Your task to perform on an android device: open app "Cash App" (install if not already installed), go to login, and select forgot password Image 0: 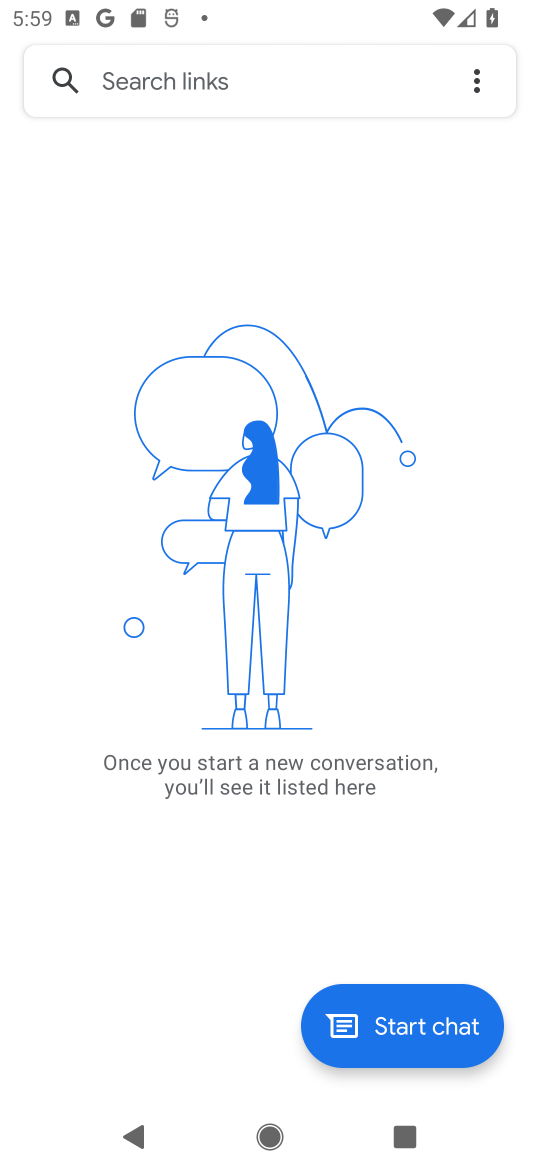
Step 0: click (220, 66)
Your task to perform on an android device: open app "Cash App" (install if not already installed), go to login, and select forgot password Image 1: 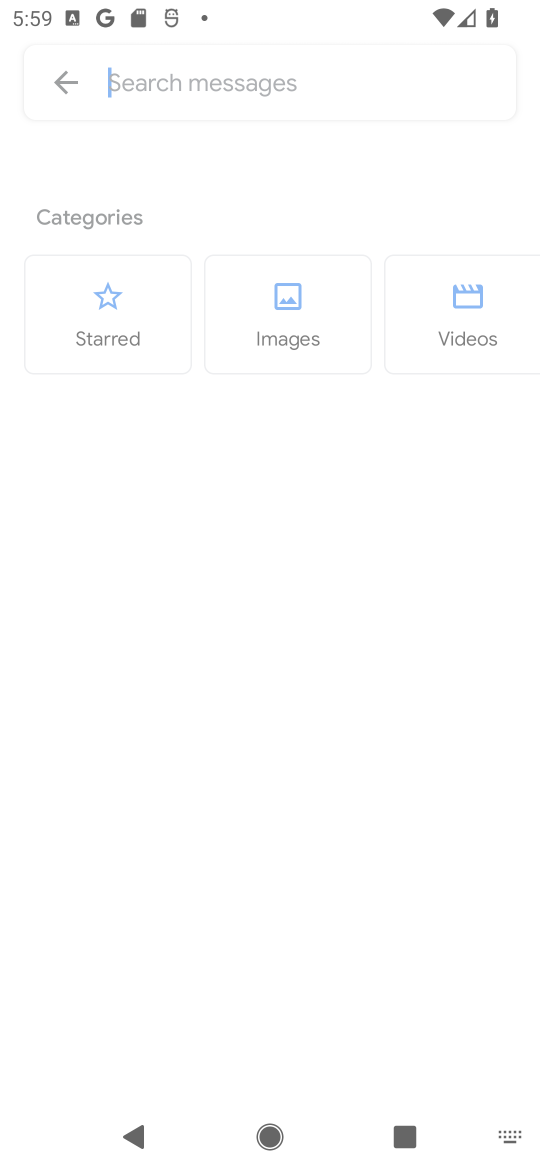
Step 1: press home button
Your task to perform on an android device: open app "Cash App" (install if not already installed), go to login, and select forgot password Image 2: 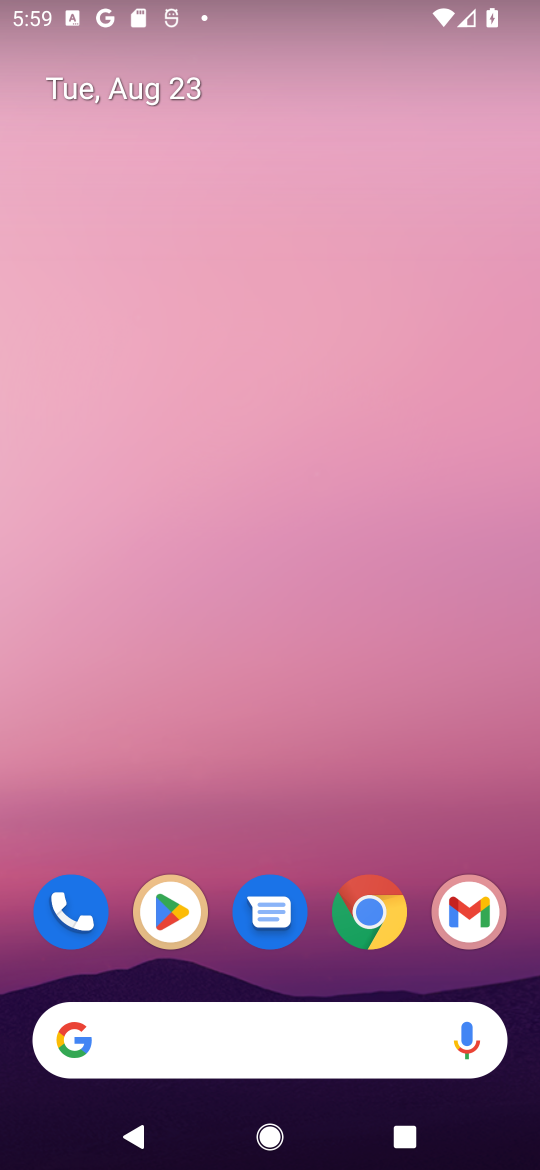
Step 2: click (179, 904)
Your task to perform on an android device: open app "Cash App" (install if not already installed), go to login, and select forgot password Image 3: 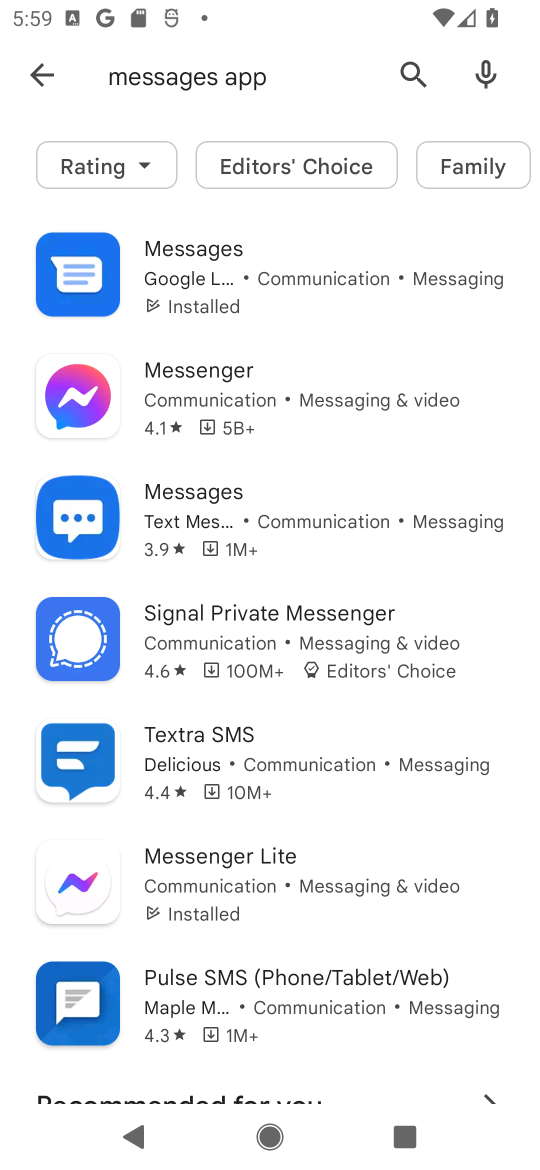
Step 3: click (59, 67)
Your task to perform on an android device: open app "Cash App" (install if not already installed), go to login, and select forgot password Image 4: 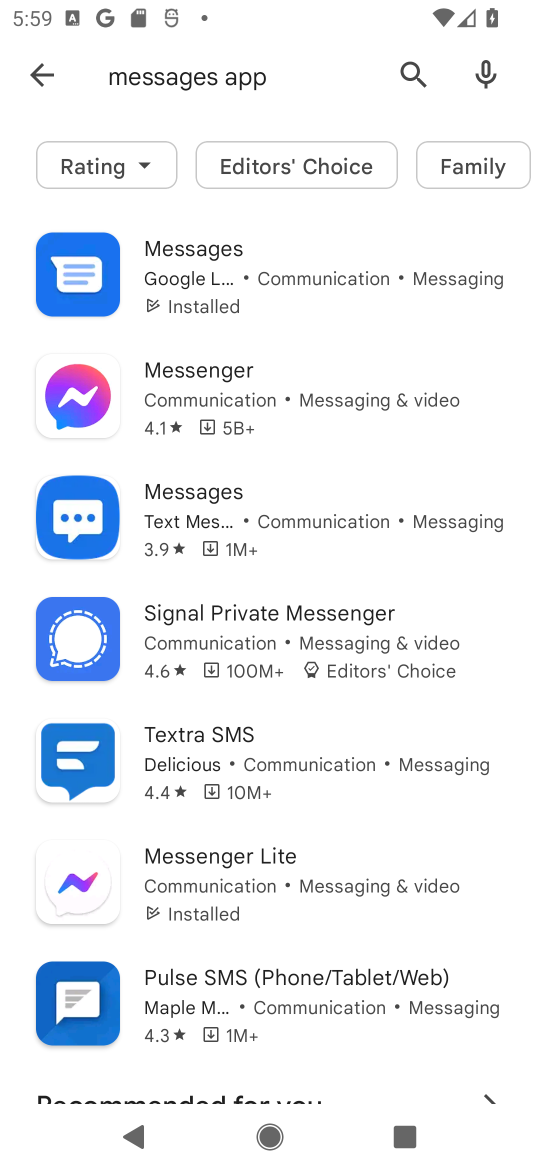
Step 4: click (59, 67)
Your task to perform on an android device: open app "Cash App" (install if not already installed), go to login, and select forgot password Image 5: 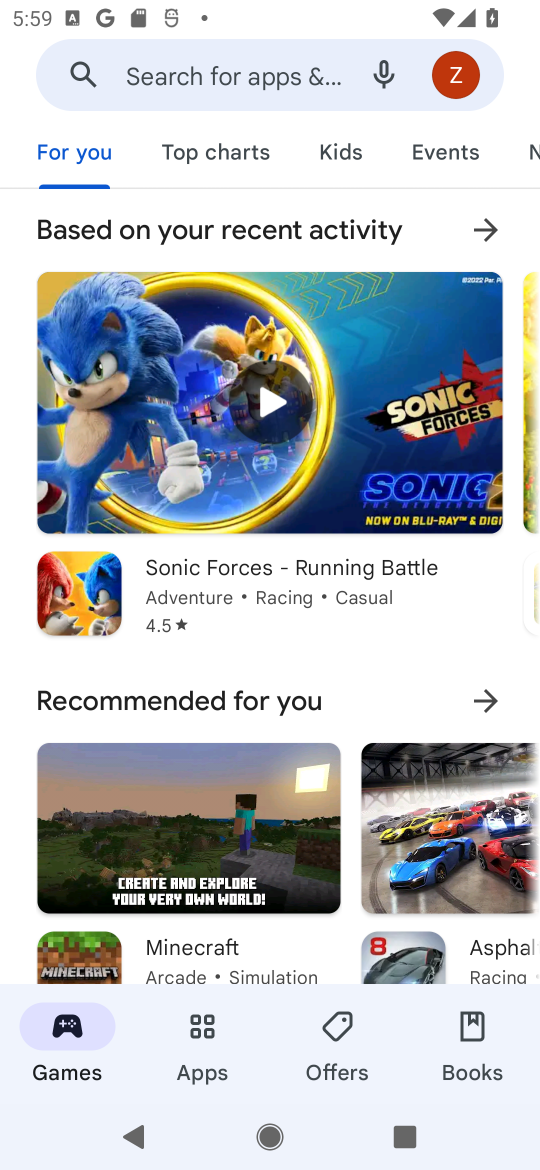
Step 5: click (117, 52)
Your task to perform on an android device: open app "Cash App" (install if not already installed), go to login, and select forgot password Image 6: 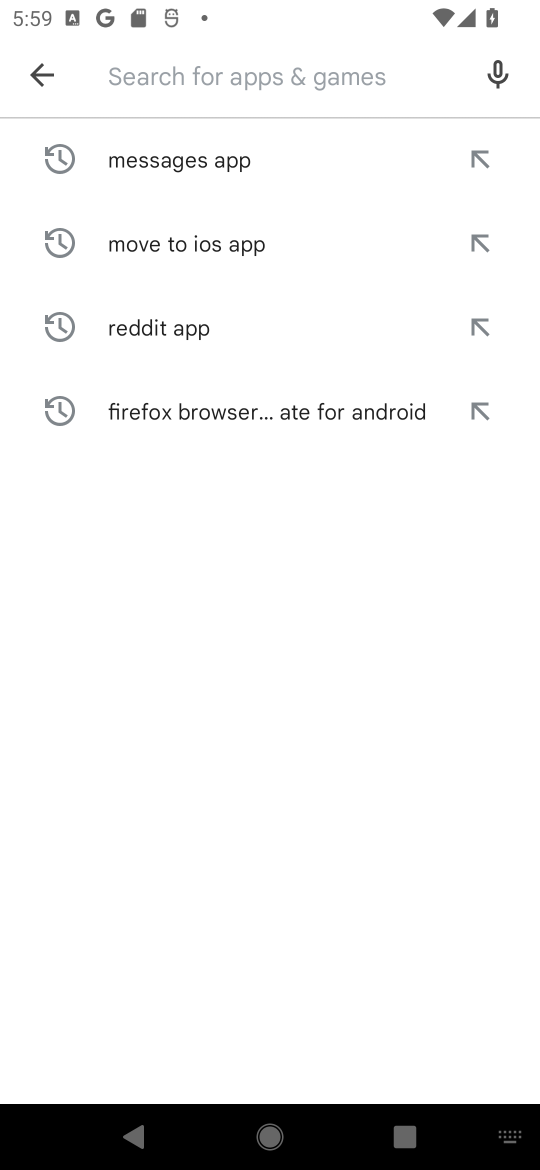
Step 6: type "cash app "
Your task to perform on an android device: open app "Cash App" (install if not already installed), go to login, and select forgot password Image 7: 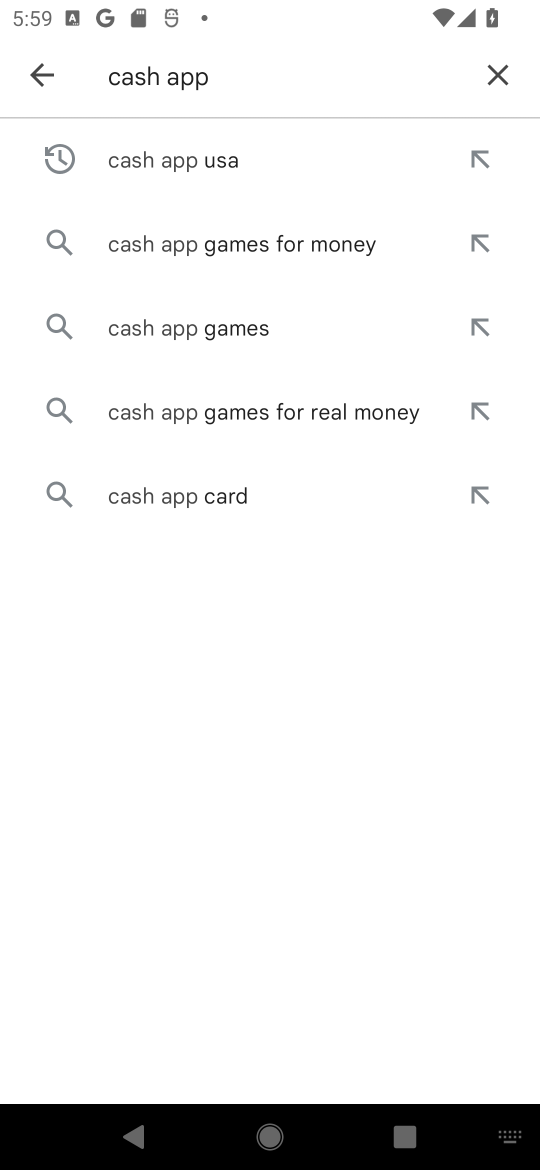
Step 7: click (127, 174)
Your task to perform on an android device: open app "Cash App" (install if not already installed), go to login, and select forgot password Image 8: 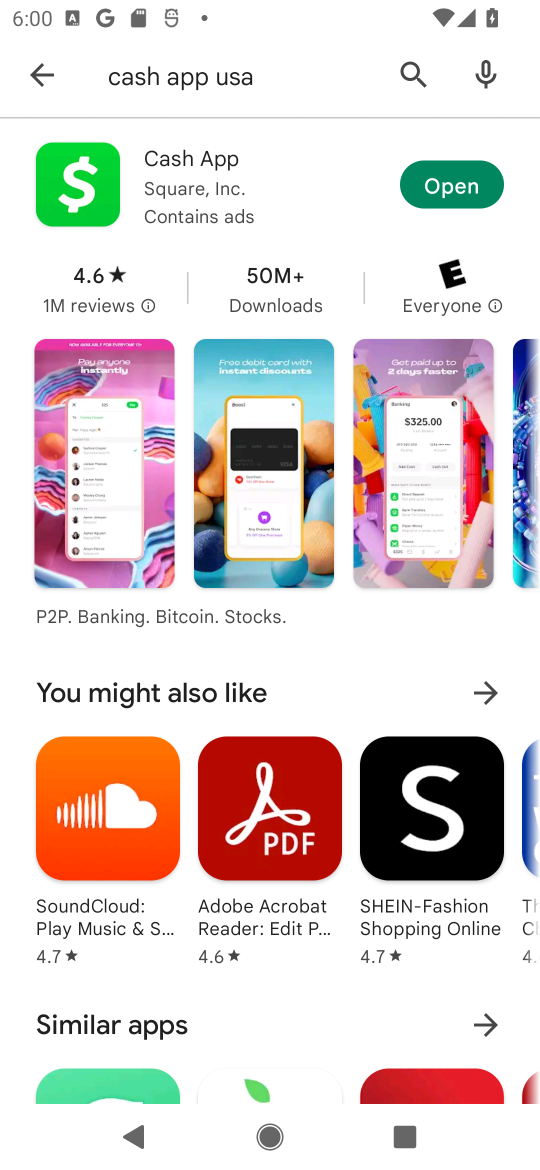
Step 8: click (437, 177)
Your task to perform on an android device: open app "Cash App" (install if not already installed), go to login, and select forgot password Image 9: 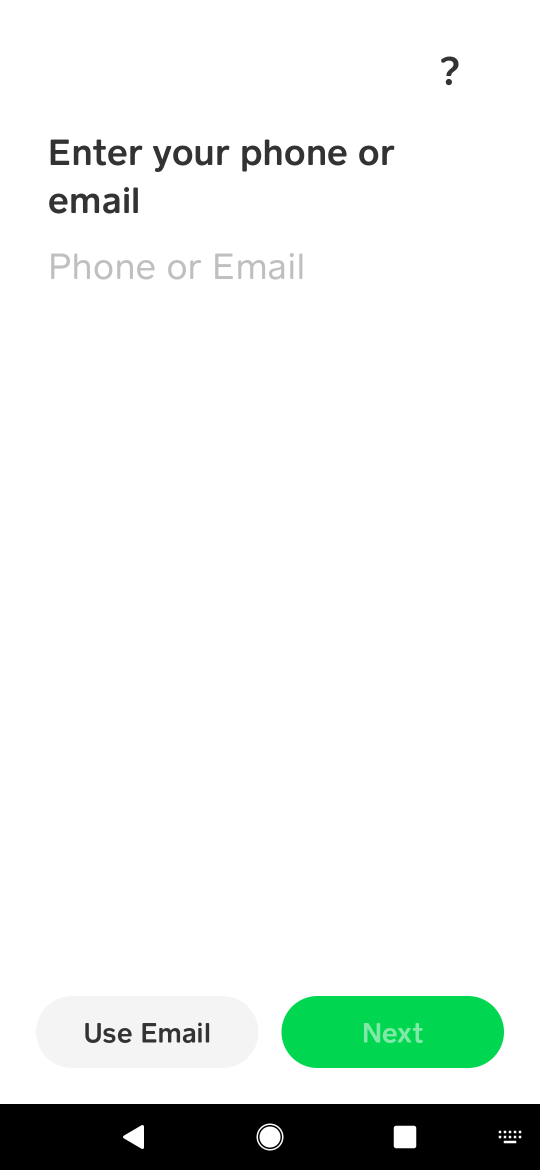
Step 9: task complete